Your task to perform on an android device: Open internet settings Image 0: 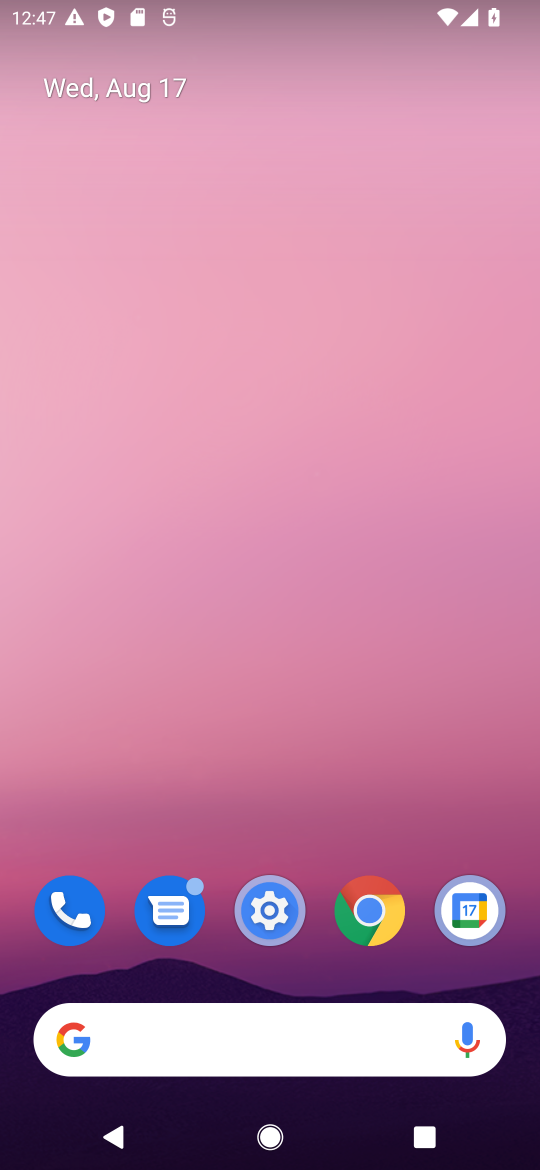
Step 0: click (275, 920)
Your task to perform on an android device: Open internet settings Image 1: 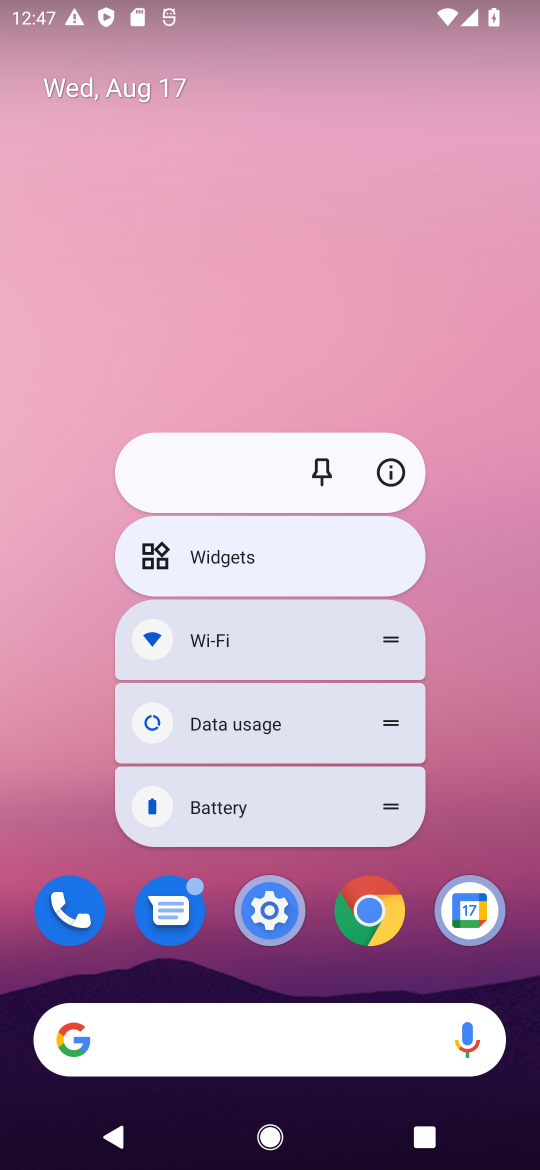
Step 1: click (275, 919)
Your task to perform on an android device: Open internet settings Image 2: 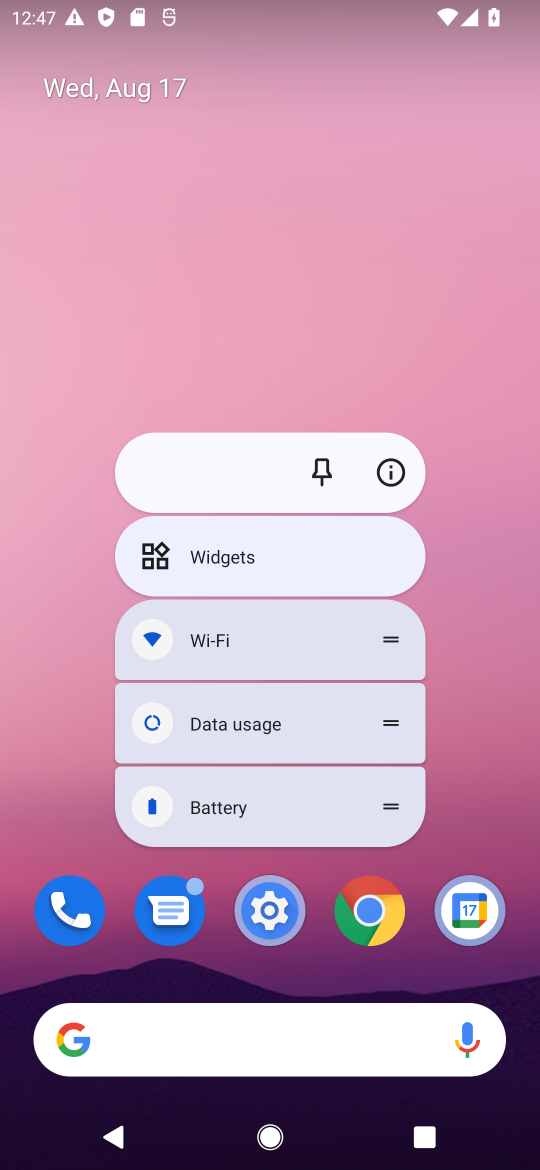
Step 2: click (275, 919)
Your task to perform on an android device: Open internet settings Image 3: 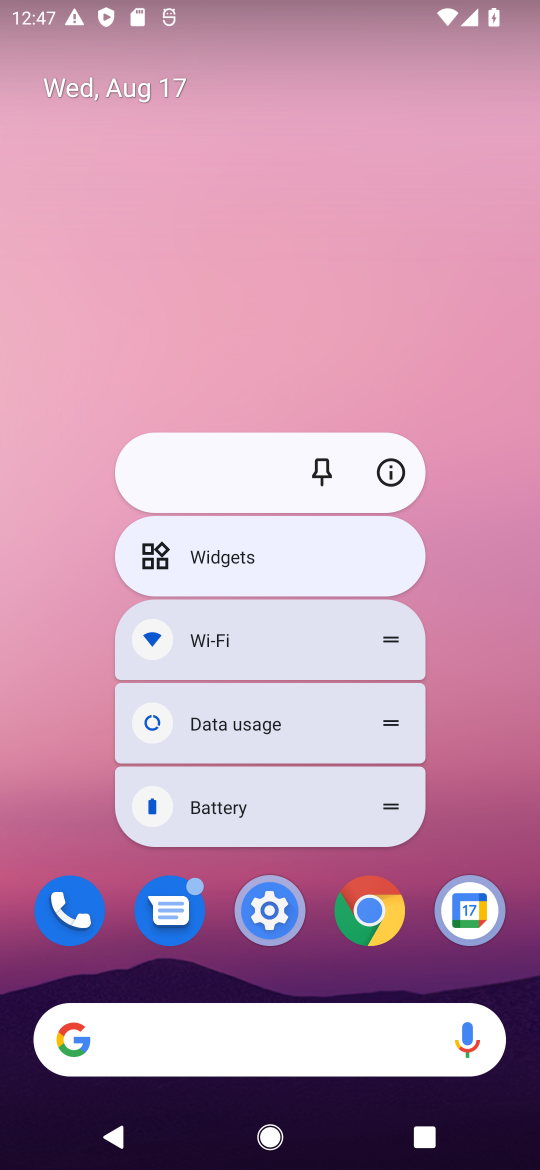
Step 3: click (274, 910)
Your task to perform on an android device: Open internet settings Image 4: 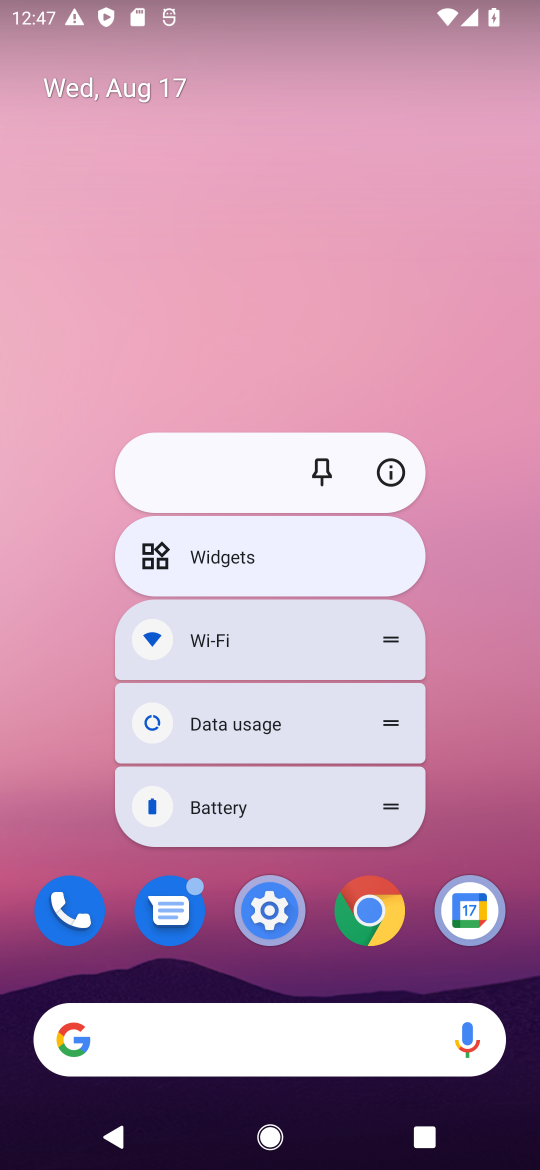
Step 4: click (272, 904)
Your task to perform on an android device: Open internet settings Image 5: 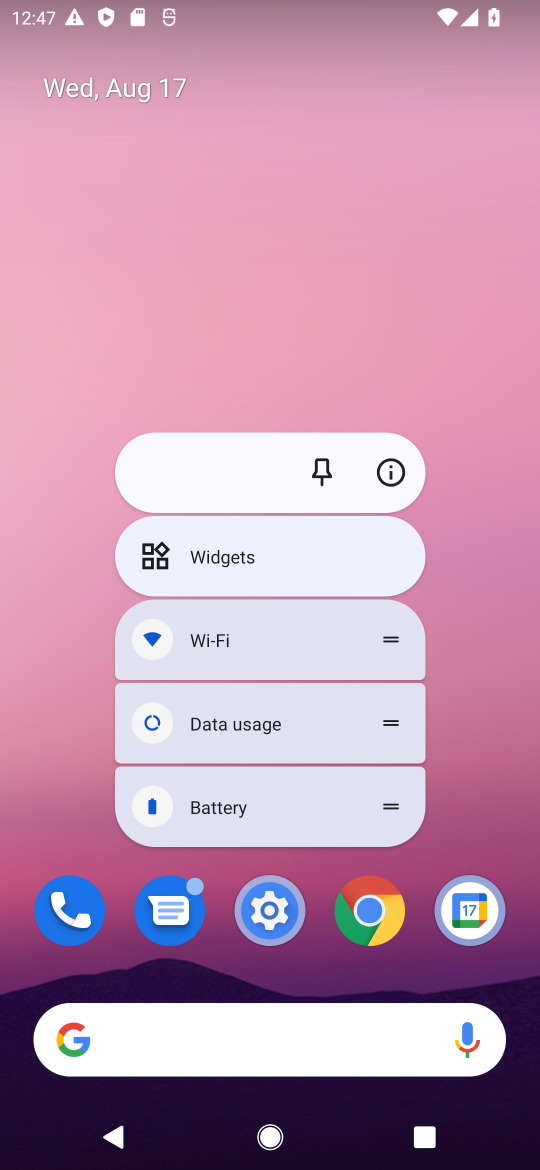
Step 5: click (266, 908)
Your task to perform on an android device: Open internet settings Image 6: 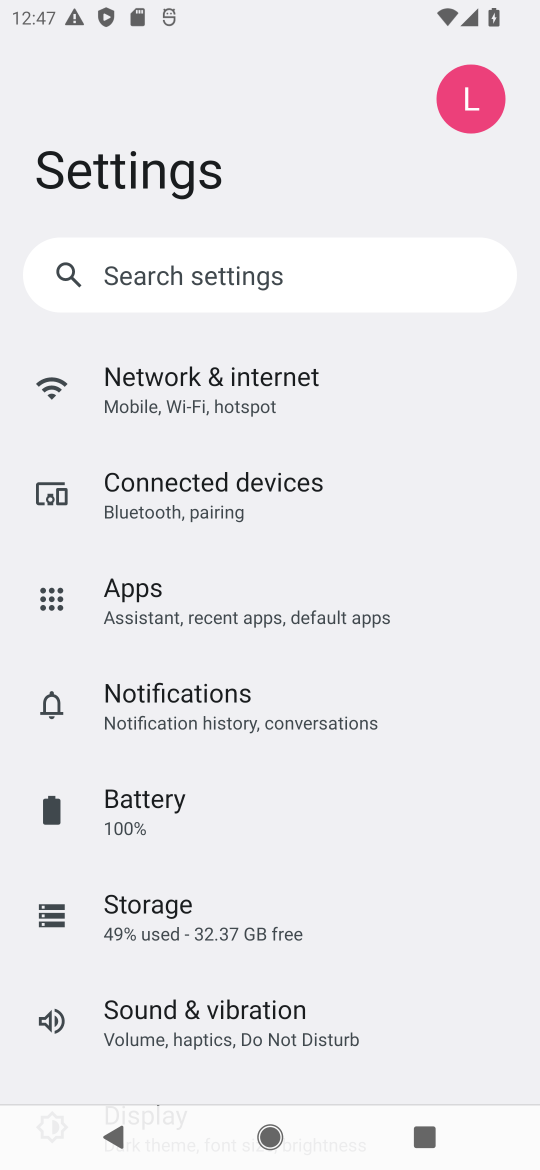
Step 6: click (264, 397)
Your task to perform on an android device: Open internet settings Image 7: 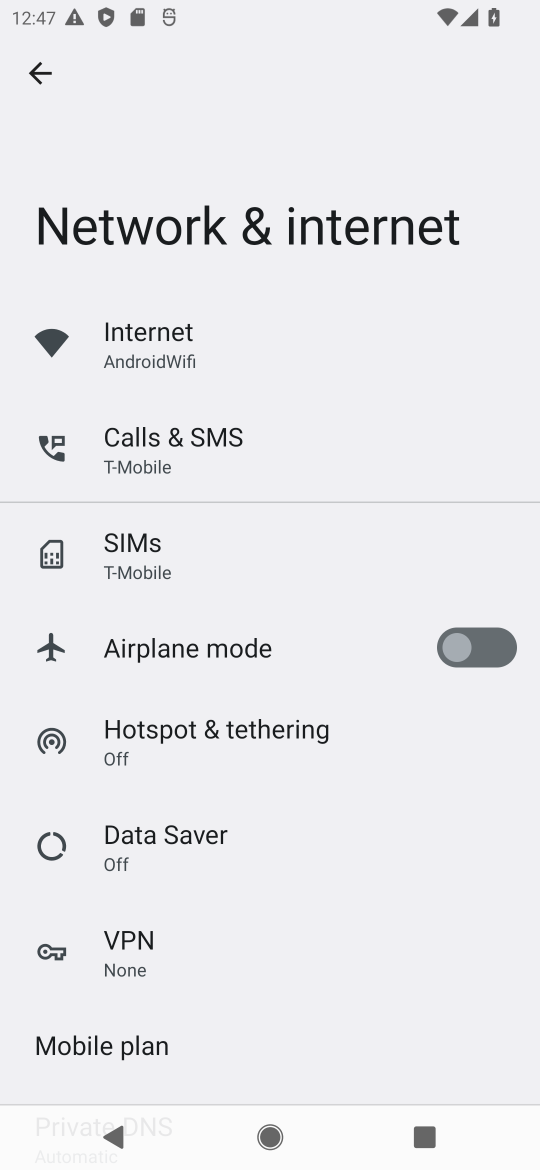
Step 7: task complete